Your task to perform on an android device: Search for the best 4K TV Image 0: 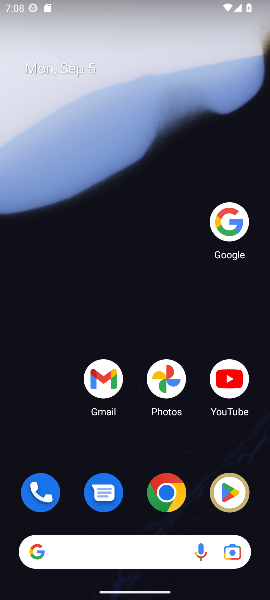
Step 0: click (239, 221)
Your task to perform on an android device: Search for the best 4K TV Image 1: 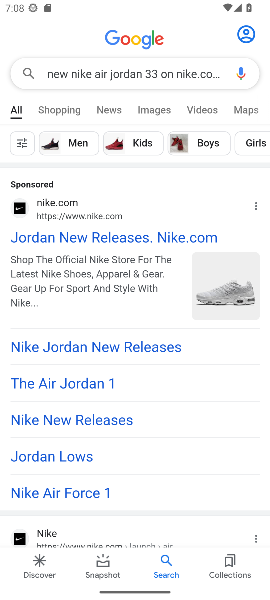
Step 1: click (139, 68)
Your task to perform on an android device: Search for the best 4K TV Image 2: 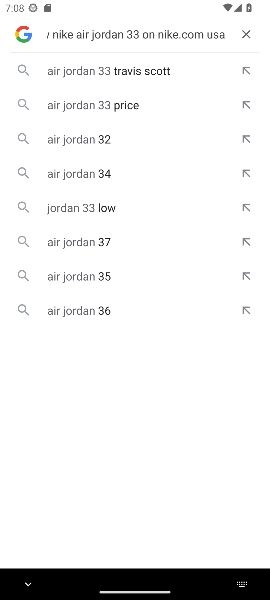
Step 2: click (250, 35)
Your task to perform on an android device: Search for the best 4K TV Image 3: 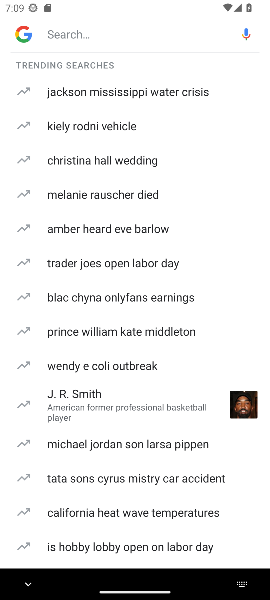
Step 3: click (80, 22)
Your task to perform on an android device: Search for the best 4K TV Image 4: 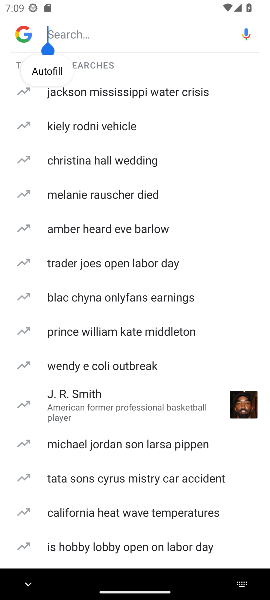
Step 4: type " the best 4K TV "
Your task to perform on an android device: Search for the best 4K TV Image 5: 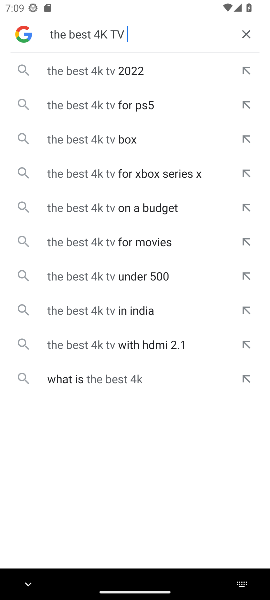
Step 5: click (66, 61)
Your task to perform on an android device: Search for the best 4K TV Image 6: 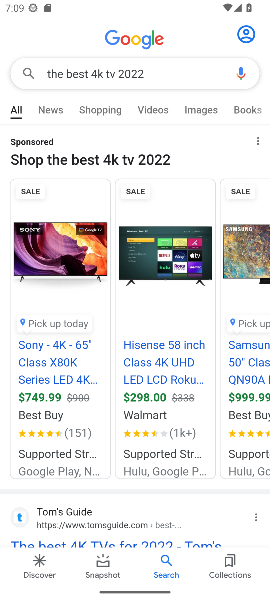
Step 6: task complete